Your task to perform on an android device: turn smart compose on in the gmail app Image 0: 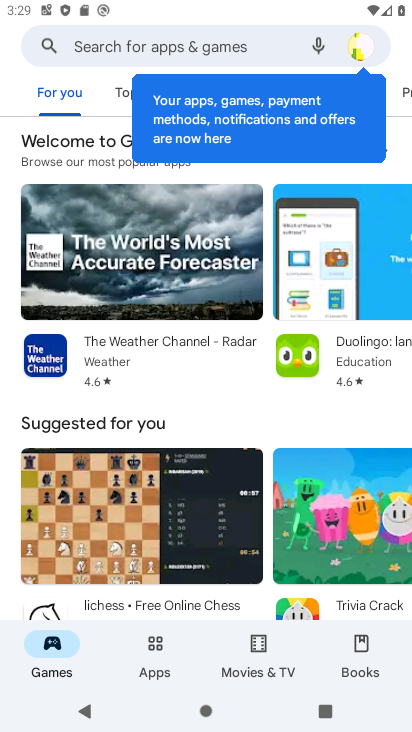
Step 0: press home button
Your task to perform on an android device: turn smart compose on in the gmail app Image 1: 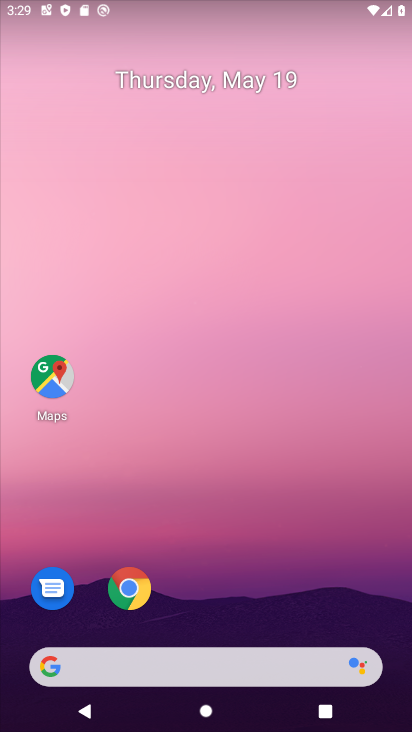
Step 1: drag from (192, 607) to (257, 53)
Your task to perform on an android device: turn smart compose on in the gmail app Image 2: 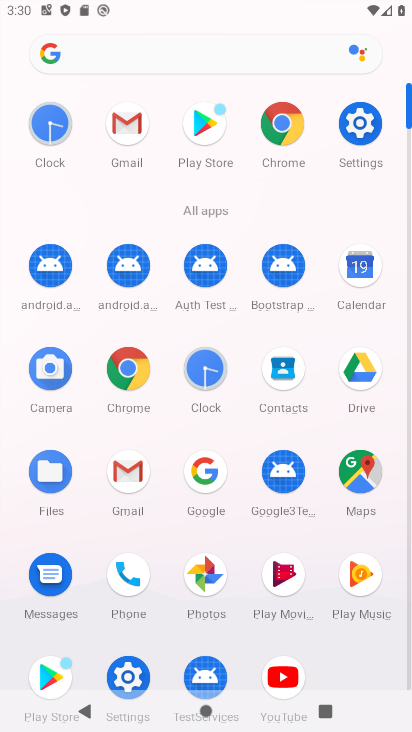
Step 2: click (127, 129)
Your task to perform on an android device: turn smart compose on in the gmail app Image 3: 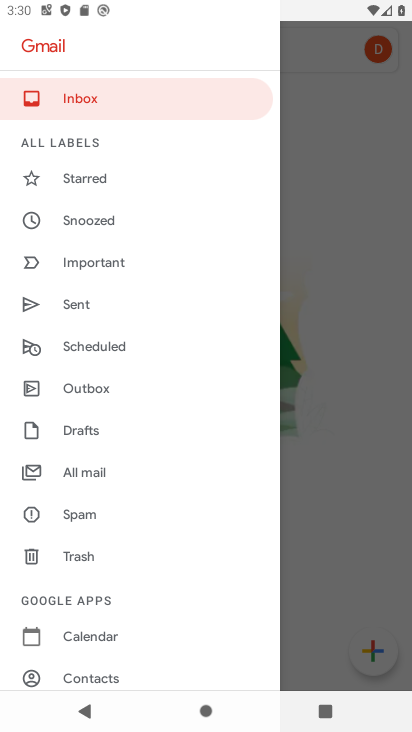
Step 3: drag from (109, 620) to (196, 349)
Your task to perform on an android device: turn smart compose on in the gmail app Image 4: 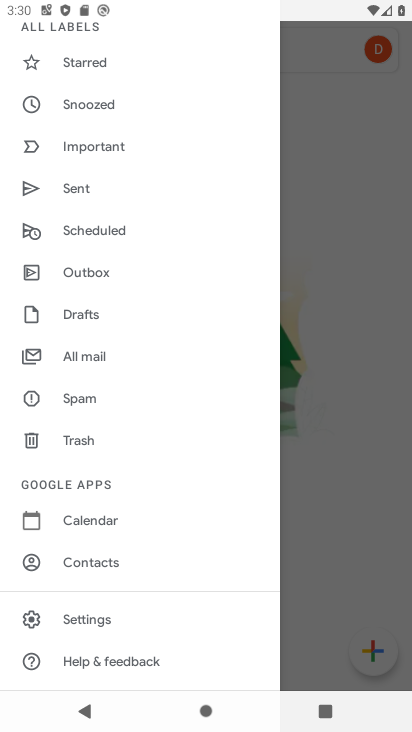
Step 4: click (88, 627)
Your task to perform on an android device: turn smart compose on in the gmail app Image 5: 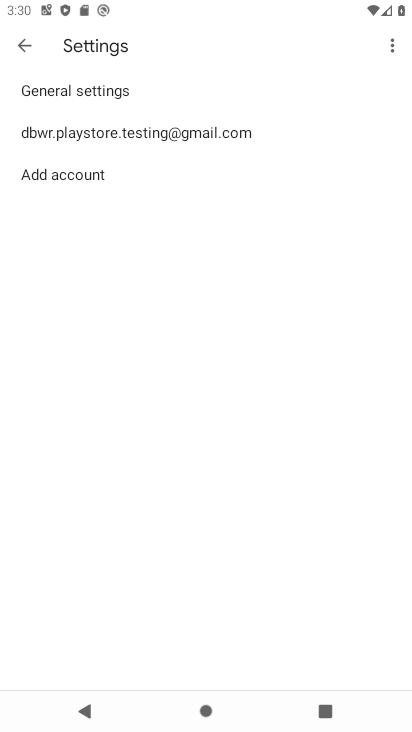
Step 5: click (161, 140)
Your task to perform on an android device: turn smart compose on in the gmail app Image 6: 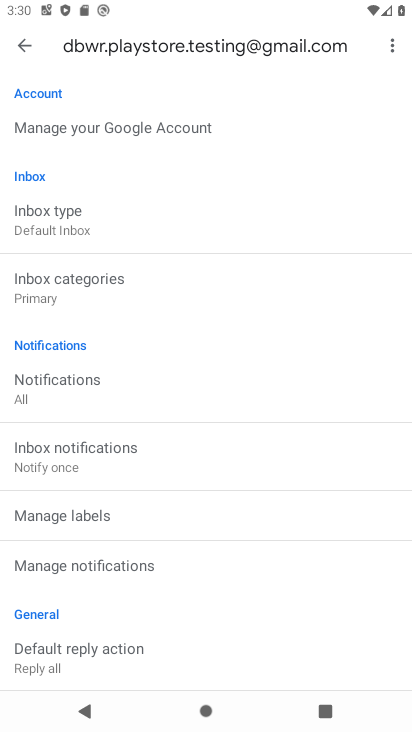
Step 6: task complete